Your task to perform on an android device: Open calendar and show me the fourth week of next month Image 0: 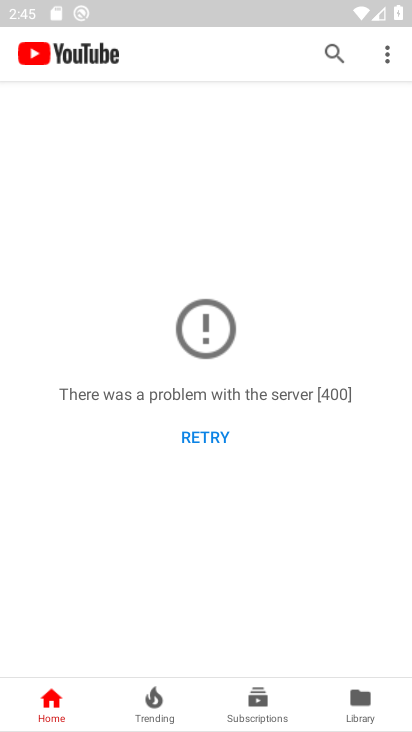
Step 0: press home button
Your task to perform on an android device: Open calendar and show me the fourth week of next month Image 1: 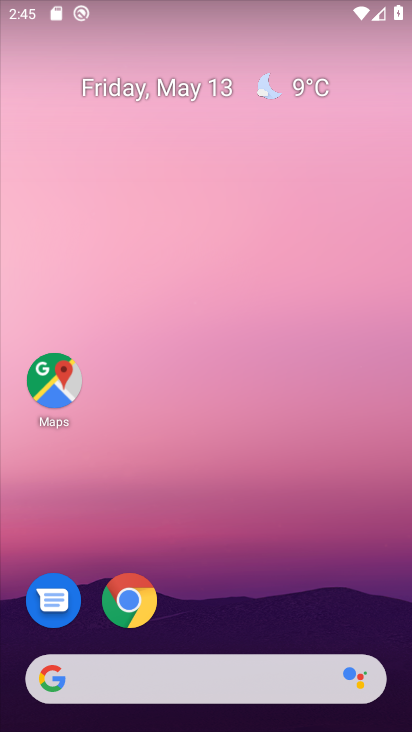
Step 1: drag from (242, 622) to (318, 226)
Your task to perform on an android device: Open calendar and show me the fourth week of next month Image 2: 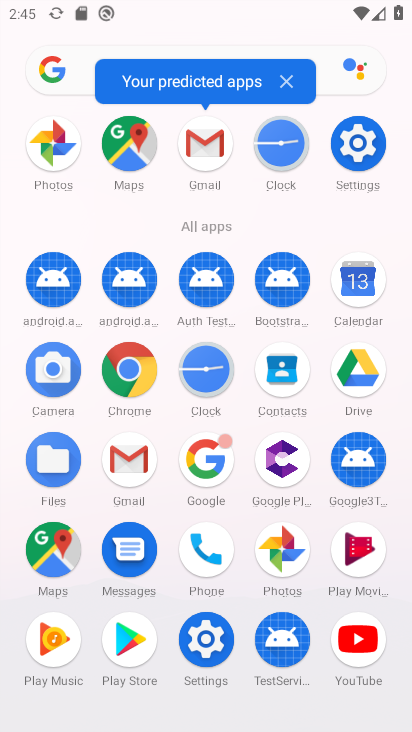
Step 2: click (366, 289)
Your task to perform on an android device: Open calendar and show me the fourth week of next month Image 3: 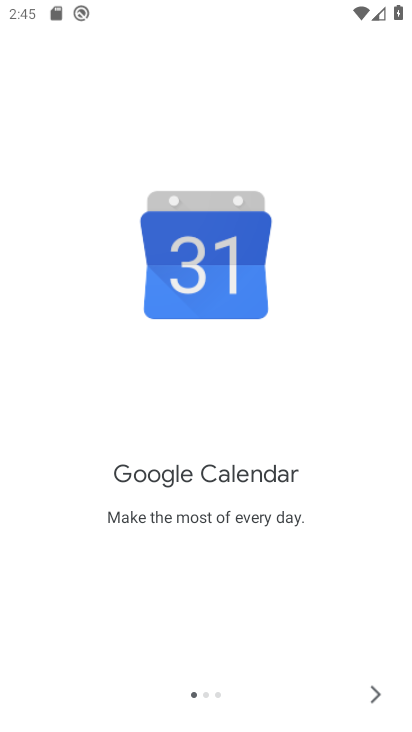
Step 3: click (376, 690)
Your task to perform on an android device: Open calendar and show me the fourth week of next month Image 4: 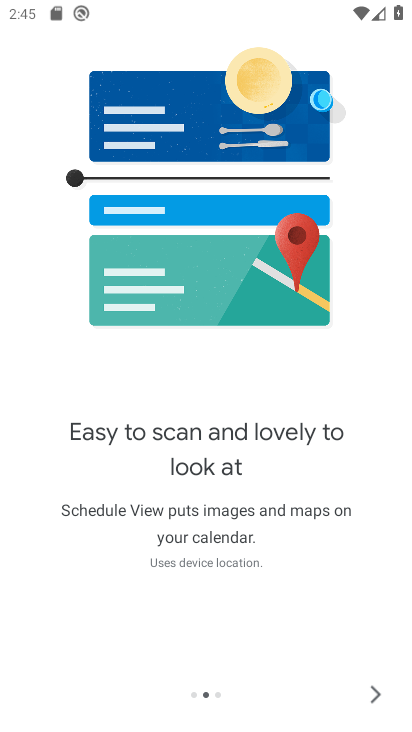
Step 4: click (373, 695)
Your task to perform on an android device: Open calendar and show me the fourth week of next month Image 5: 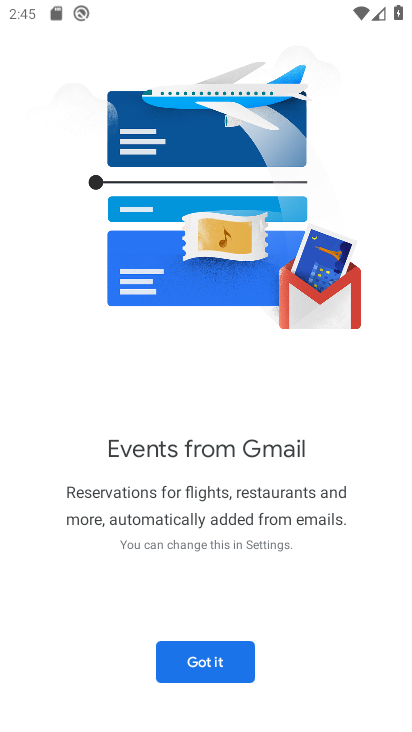
Step 5: click (190, 664)
Your task to perform on an android device: Open calendar and show me the fourth week of next month Image 6: 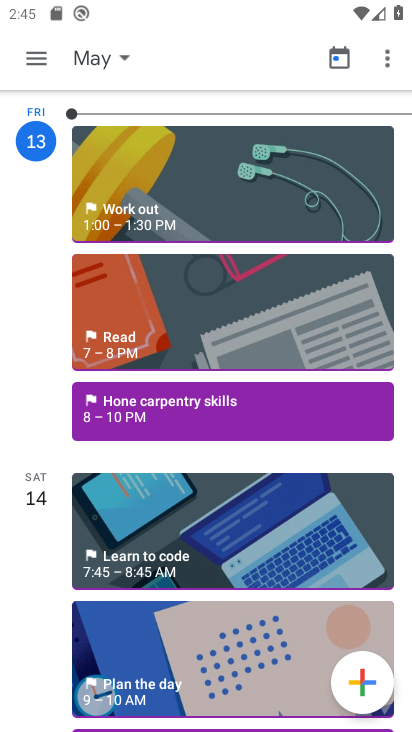
Step 6: click (98, 55)
Your task to perform on an android device: Open calendar and show me the fourth week of next month Image 7: 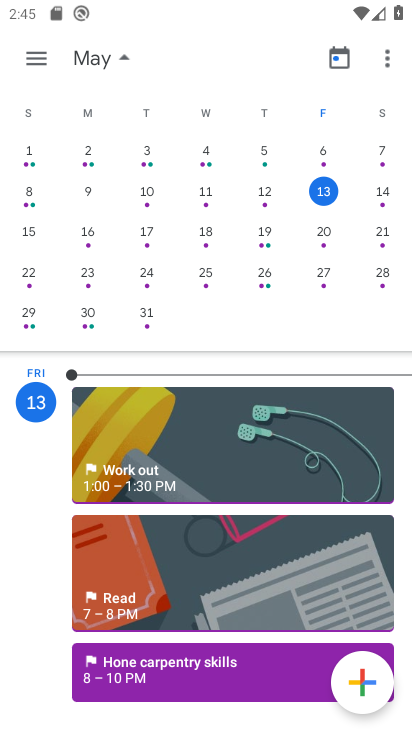
Step 7: drag from (356, 225) to (6, 228)
Your task to perform on an android device: Open calendar and show me the fourth week of next month Image 8: 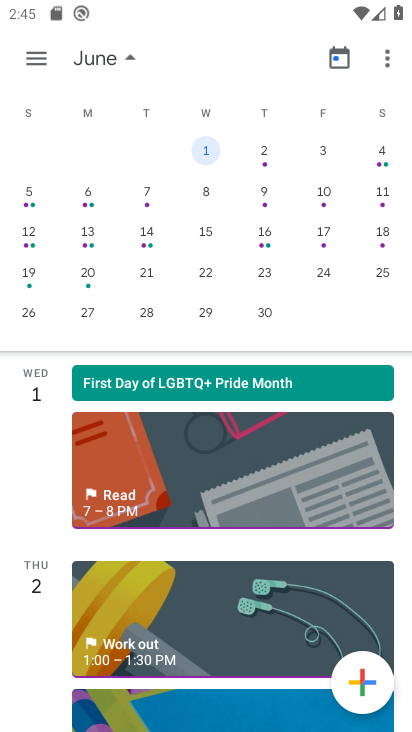
Step 8: click (23, 270)
Your task to perform on an android device: Open calendar and show me the fourth week of next month Image 9: 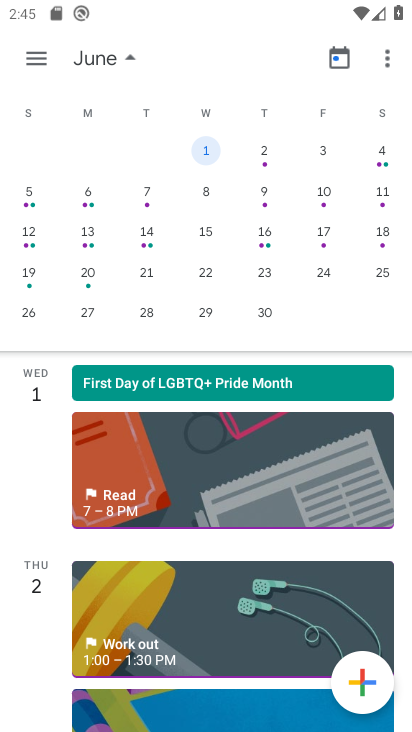
Step 9: click (30, 271)
Your task to perform on an android device: Open calendar and show me the fourth week of next month Image 10: 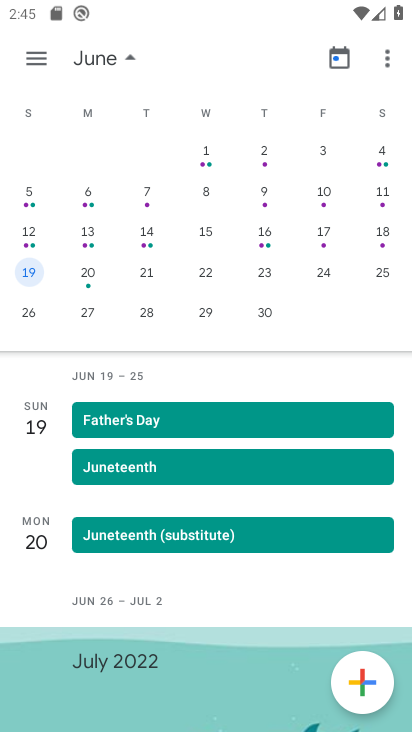
Step 10: task complete